Your task to perform on an android device: Go to Google Image 0: 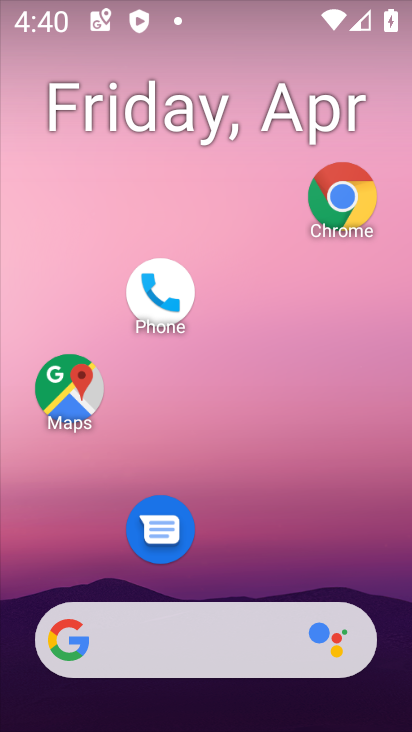
Step 0: drag from (255, 568) to (234, 45)
Your task to perform on an android device: Go to Google Image 1: 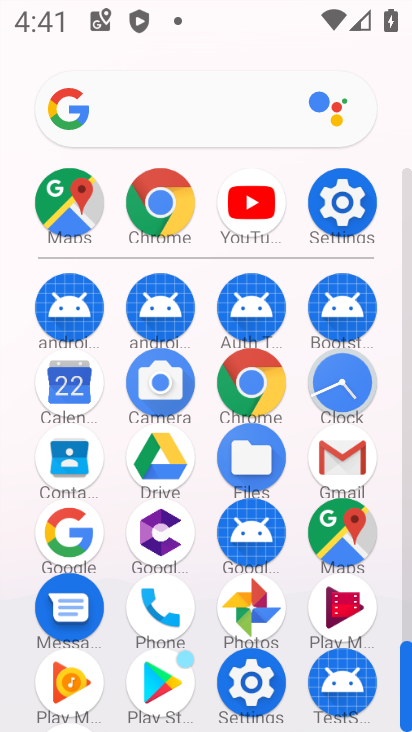
Step 1: click (66, 524)
Your task to perform on an android device: Go to Google Image 2: 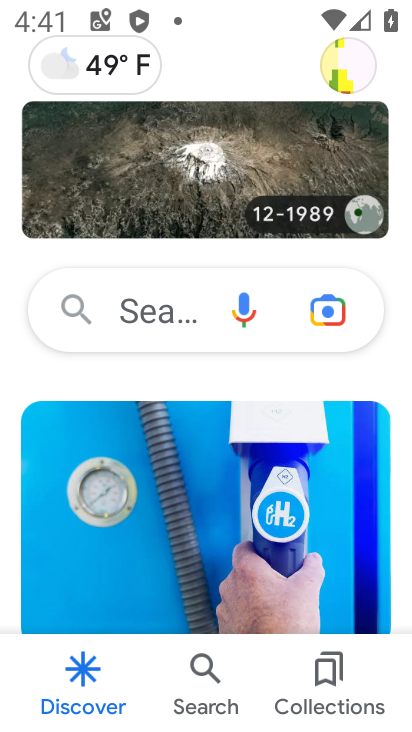
Step 2: task complete